Your task to perform on an android device: change alarm snooze length Image 0: 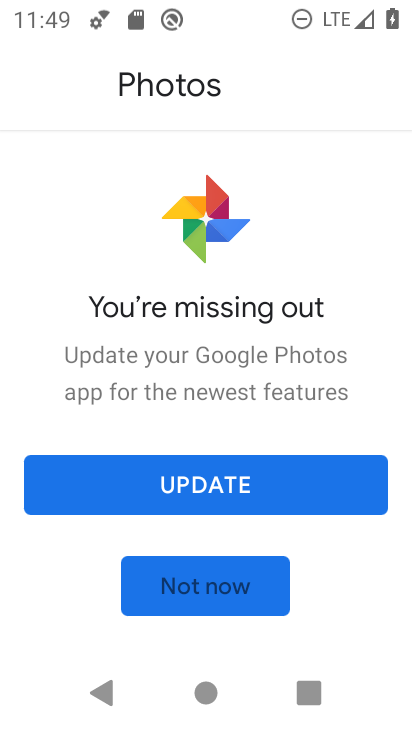
Step 0: press home button
Your task to perform on an android device: change alarm snooze length Image 1: 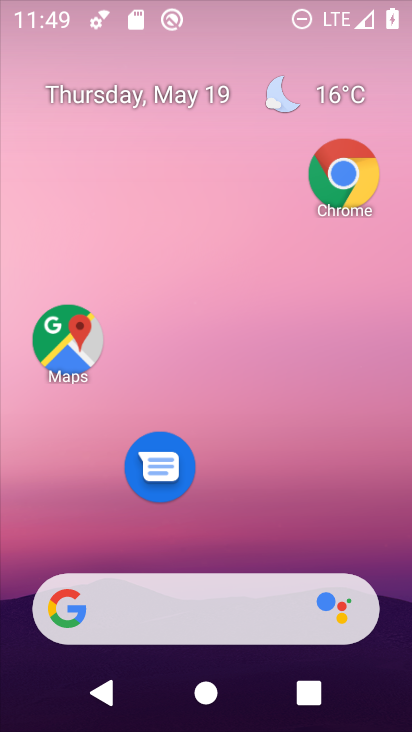
Step 1: drag from (295, 500) to (301, 244)
Your task to perform on an android device: change alarm snooze length Image 2: 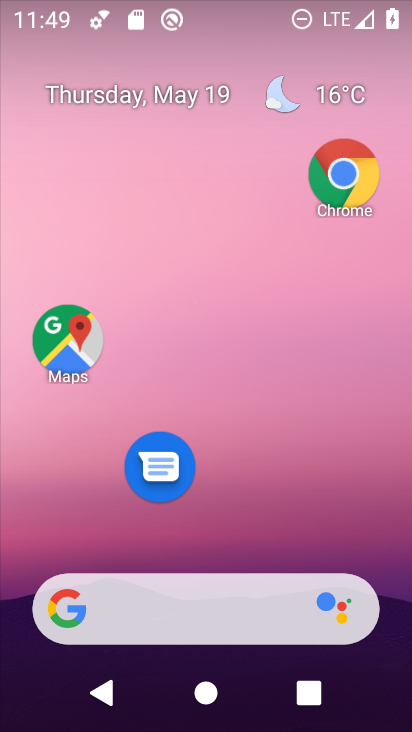
Step 2: drag from (223, 527) to (259, 294)
Your task to perform on an android device: change alarm snooze length Image 3: 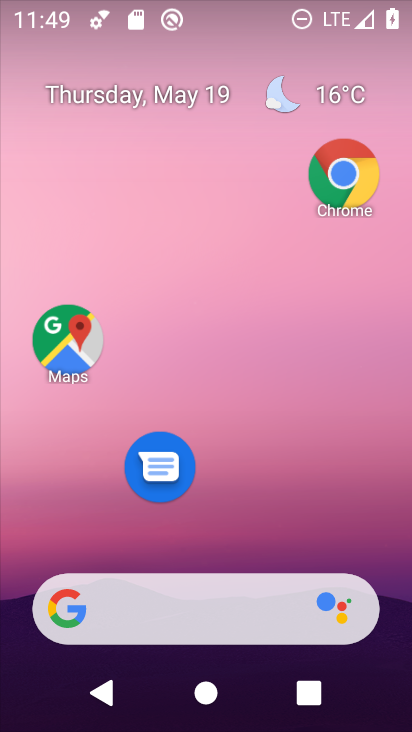
Step 3: drag from (269, 474) to (281, 268)
Your task to perform on an android device: change alarm snooze length Image 4: 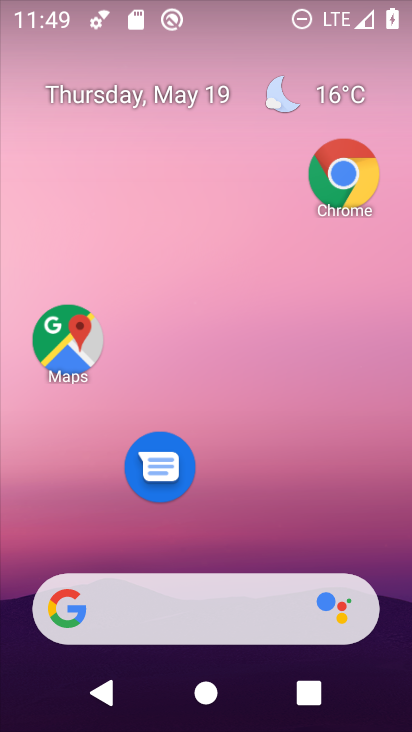
Step 4: drag from (244, 635) to (257, 284)
Your task to perform on an android device: change alarm snooze length Image 5: 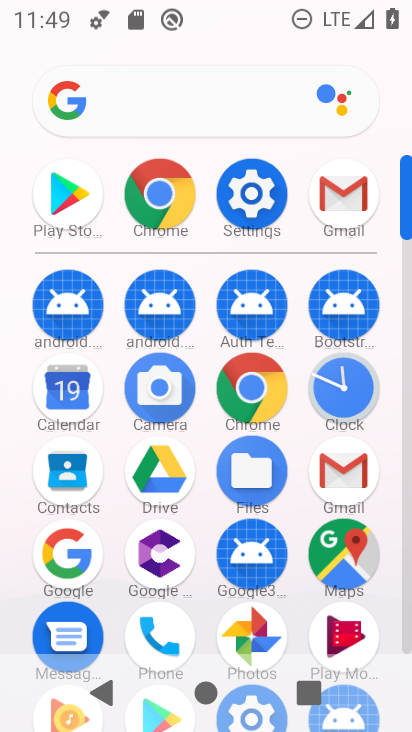
Step 5: click (361, 460)
Your task to perform on an android device: change alarm snooze length Image 6: 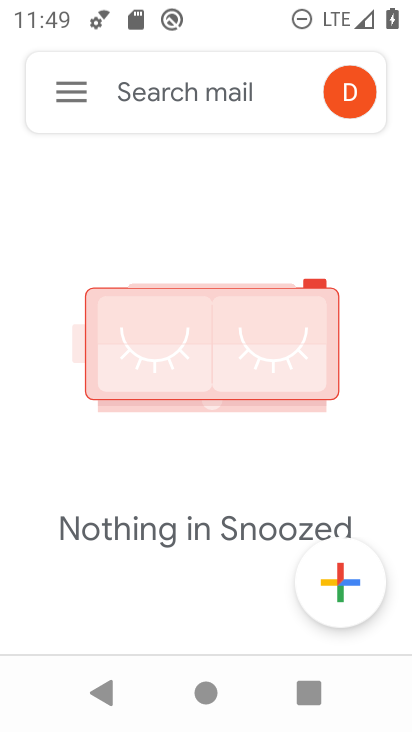
Step 6: press home button
Your task to perform on an android device: change alarm snooze length Image 7: 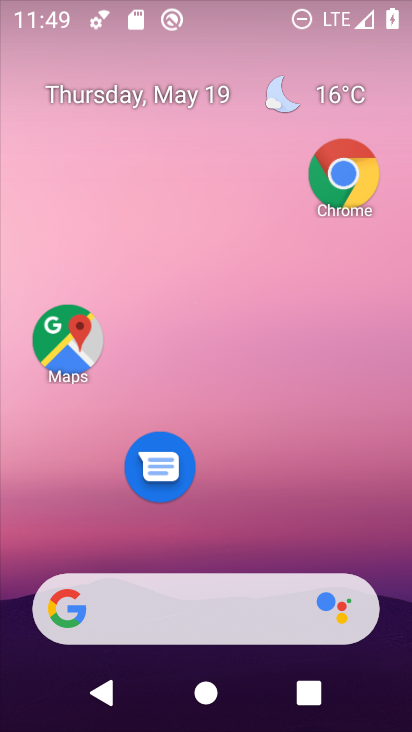
Step 7: drag from (287, 553) to (280, 247)
Your task to perform on an android device: change alarm snooze length Image 8: 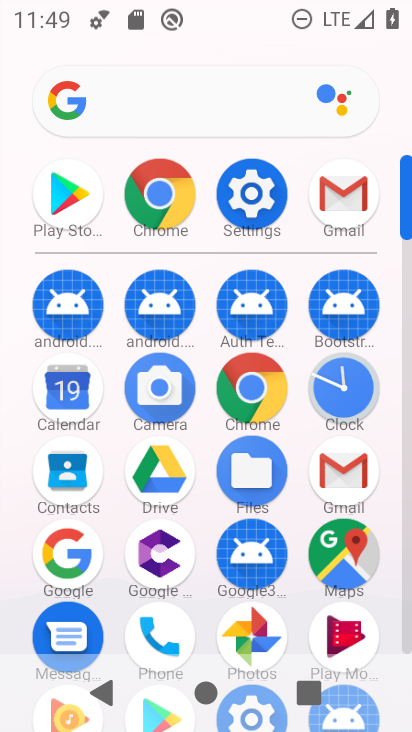
Step 8: click (260, 191)
Your task to perform on an android device: change alarm snooze length Image 9: 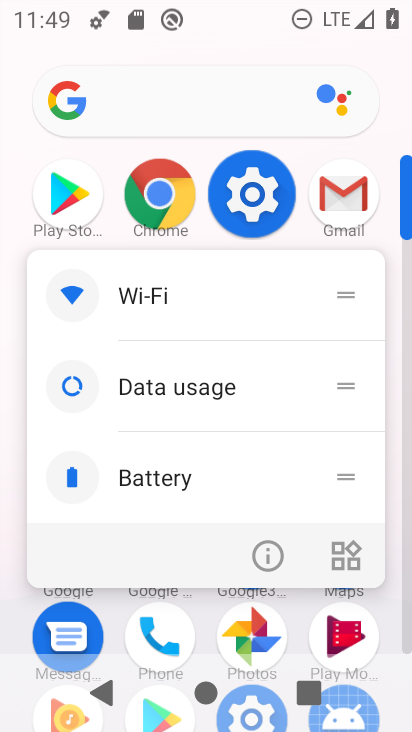
Step 9: click (260, 191)
Your task to perform on an android device: change alarm snooze length Image 10: 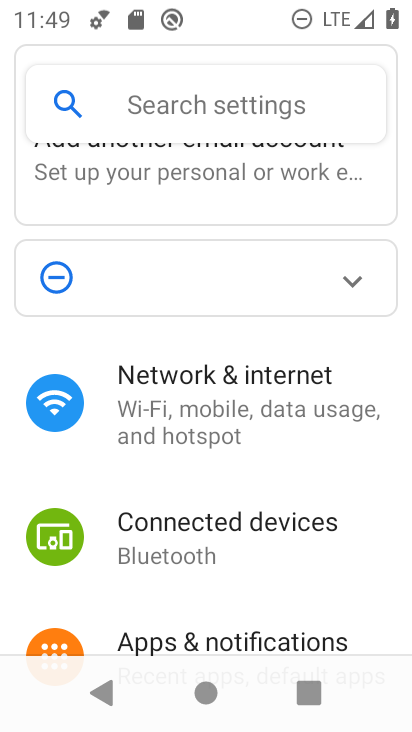
Step 10: press back button
Your task to perform on an android device: change alarm snooze length Image 11: 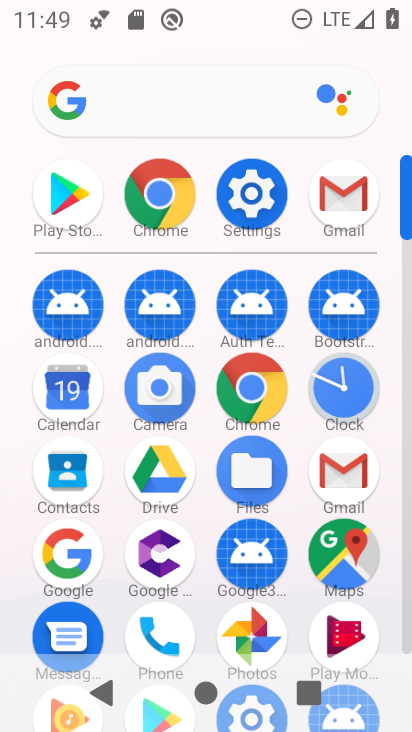
Step 11: click (346, 392)
Your task to perform on an android device: change alarm snooze length Image 12: 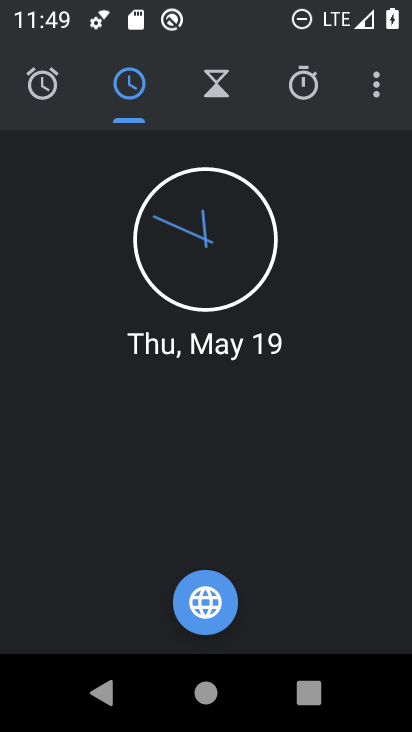
Step 12: click (395, 81)
Your task to perform on an android device: change alarm snooze length Image 13: 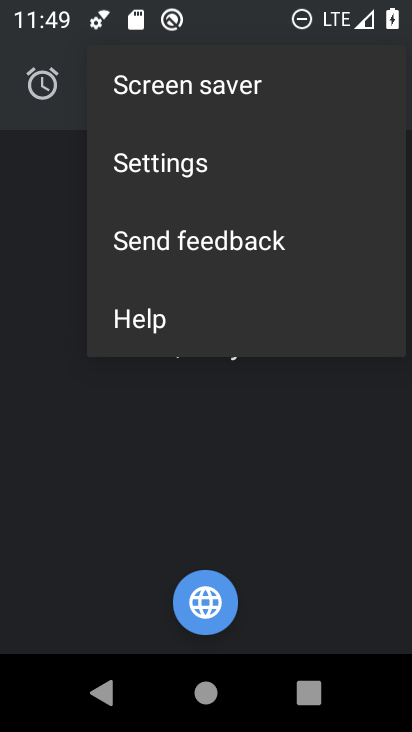
Step 13: click (193, 149)
Your task to perform on an android device: change alarm snooze length Image 14: 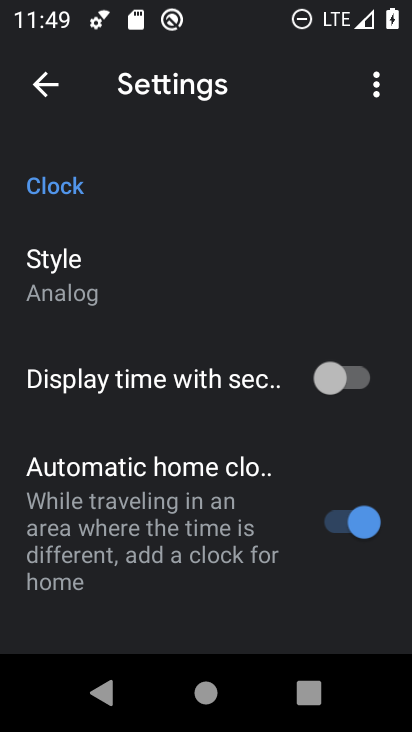
Step 14: drag from (169, 538) to (240, 131)
Your task to perform on an android device: change alarm snooze length Image 15: 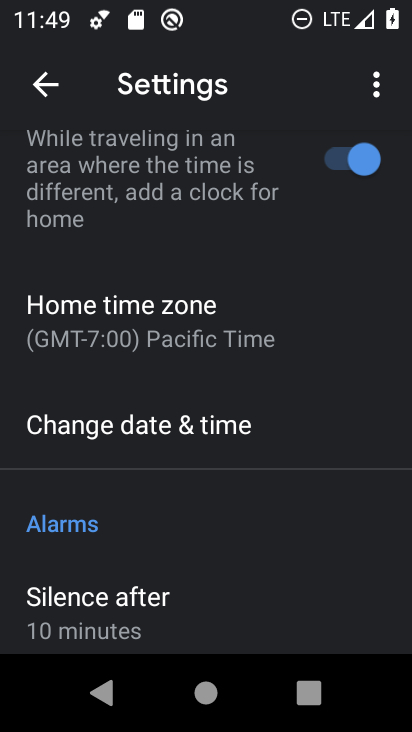
Step 15: drag from (185, 551) to (263, 207)
Your task to perform on an android device: change alarm snooze length Image 16: 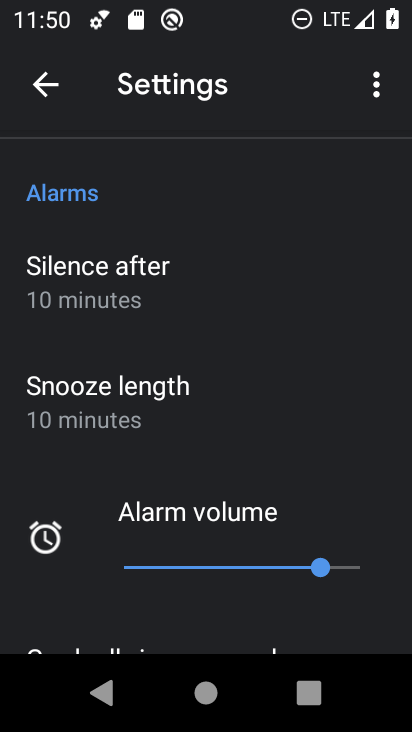
Step 16: drag from (187, 506) to (229, 349)
Your task to perform on an android device: change alarm snooze length Image 17: 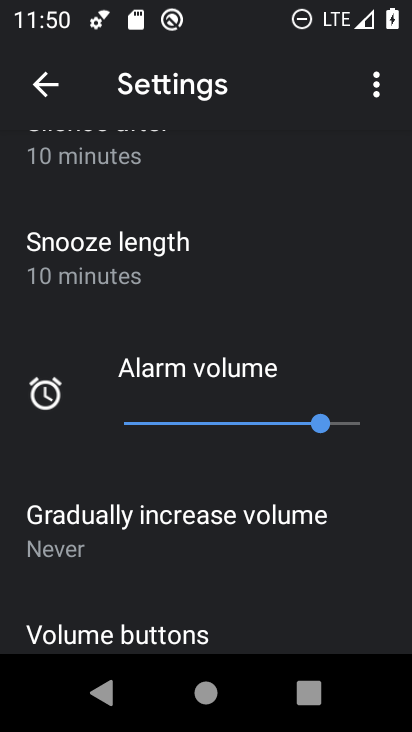
Step 17: click (193, 288)
Your task to perform on an android device: change alarm snooze length Image 18: 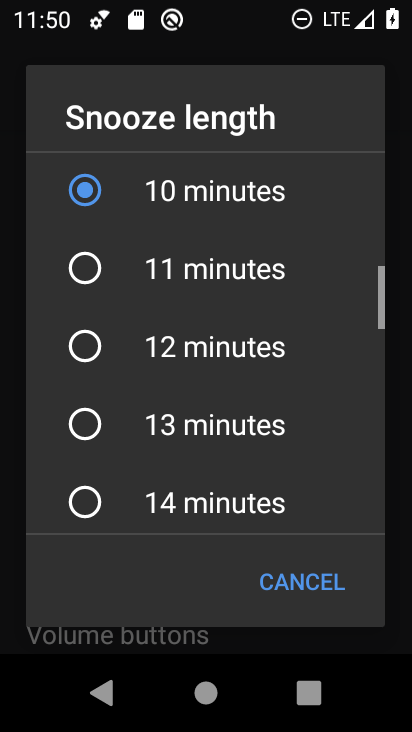
Step 18: click (207, 403)
Your task to perform on an android device: change alarm snooze length Image 19: 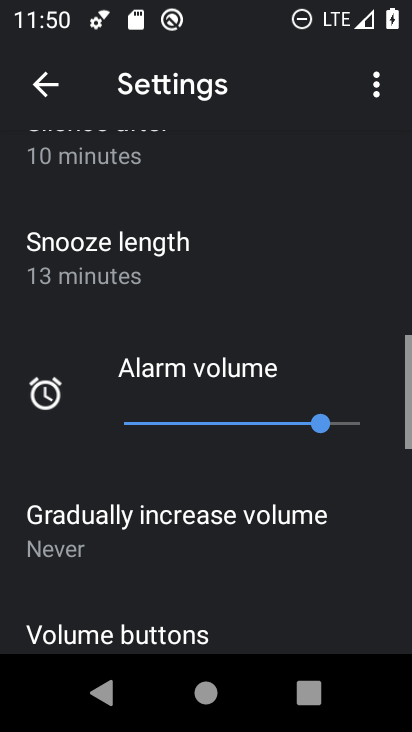
Step 19: task complete